Your task to perform on an android device: Open Android settings Image 0: 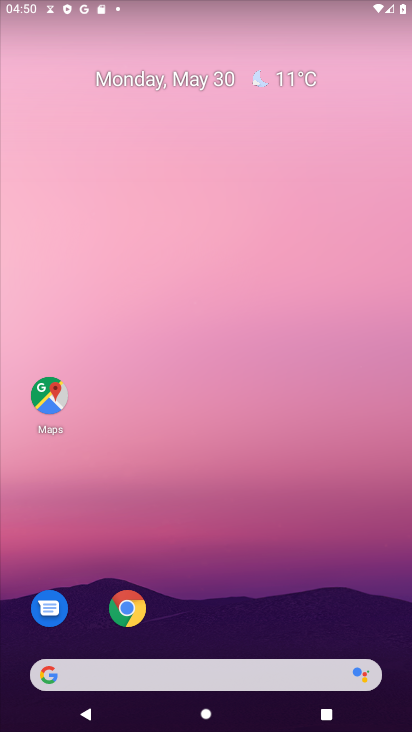
Step 0: drag from (200, 657) to (225, 233)
Your task to perform on an android device: Open Android settings Image 1: 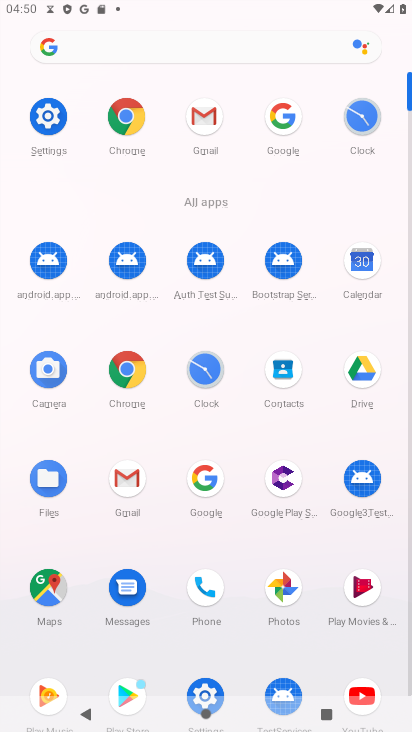
Step 1: click (54, 111)
Your task to perform on an android device: Open Android settings Image 2: 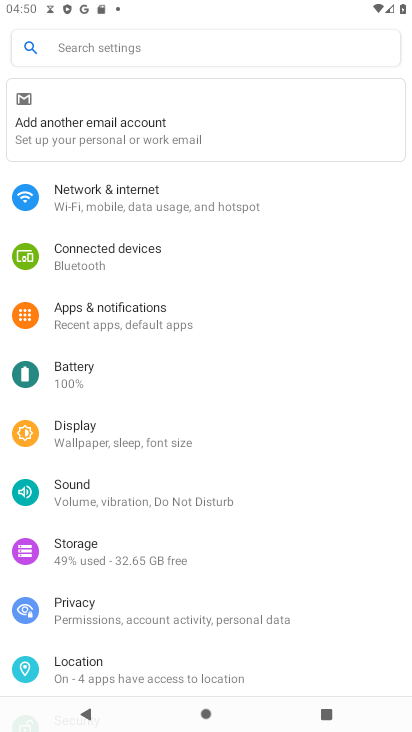
Step 2: task complete